Your task to perform on an android device: move an email to a new category in the gmail app Image 0: 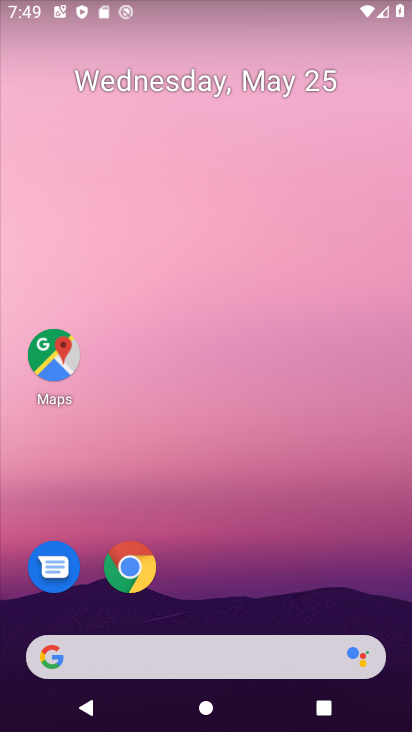
Step 0: drag from (249, 616) to (290, 171)
Your task to perform on an android device: move an email to a new category in the gmail app Image 1: 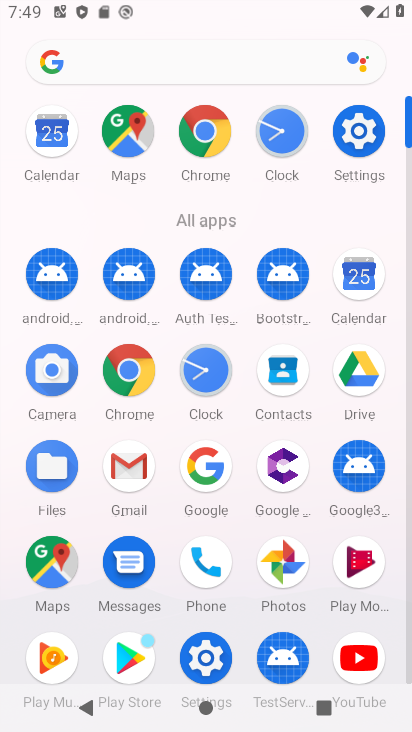
Step 1: click (131, 499)
Your task to perform on an android device: move an email to a new category in the gmail app Image 2: 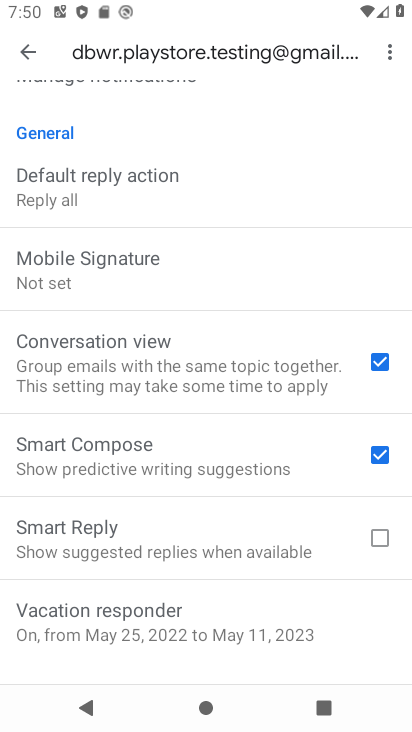
Step 2: task complete